Your task to perform on an android device: Go to Android settings Image 0: 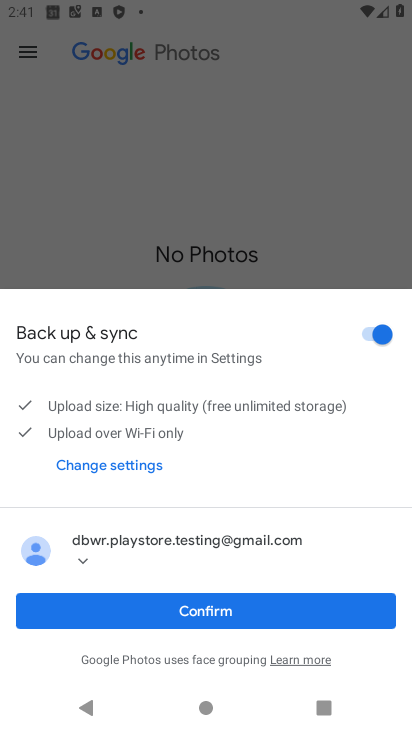
Step 0: press home button
Your task to perform on an android device: Go to Android settings Image 1: 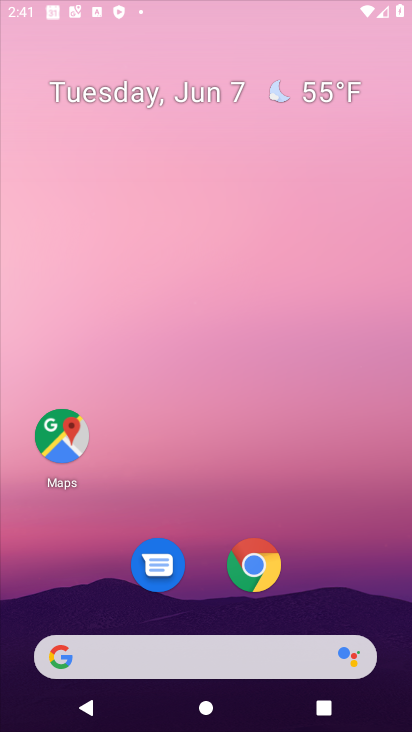
Step 1: drag from (245, 682) to (245, 72)
Your task to perform on an android device: Go to Android settings Image 2: 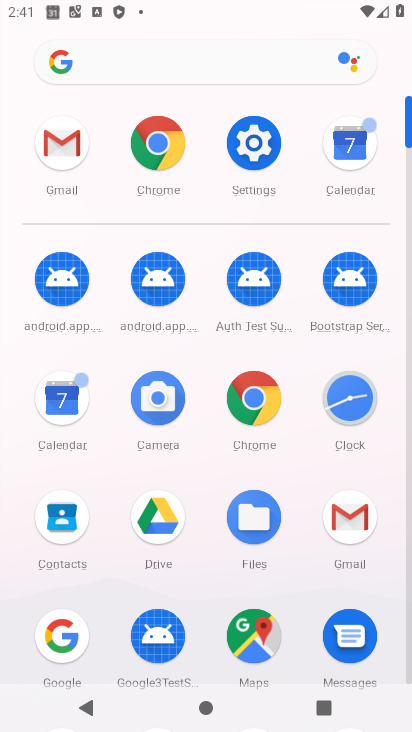
Step 2: click (246, 154)
Your task to perform on an android device: Go to Android settings Image 3: 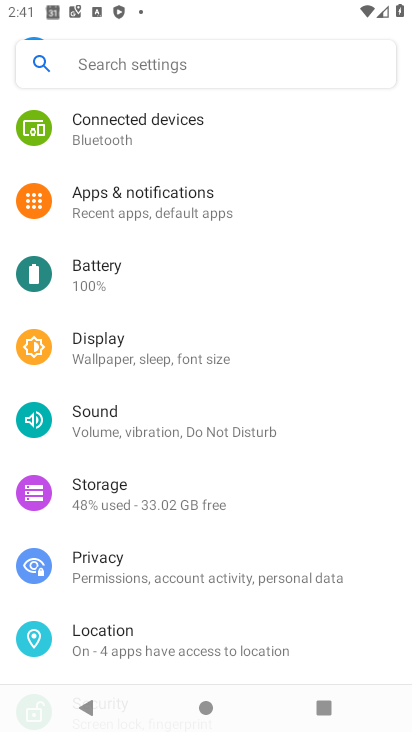
Step 3: drag from (188, 625) to (182, 54)
Your task to perform on an android device: Go to Android settings Image 4: 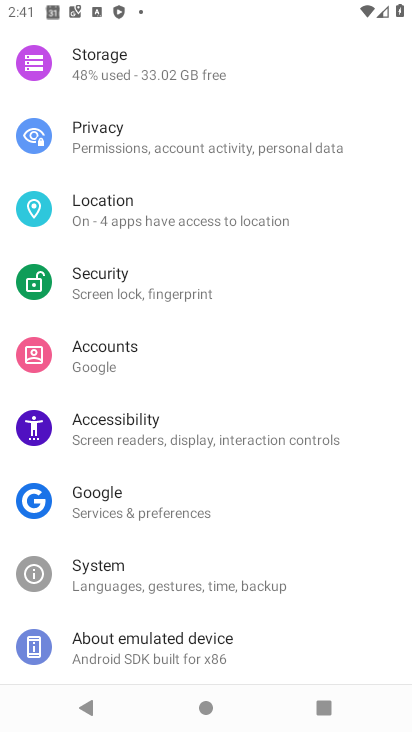
Step 4: click (199, 652)
Your task to perform on an android device: Go to Android settings Image 5: 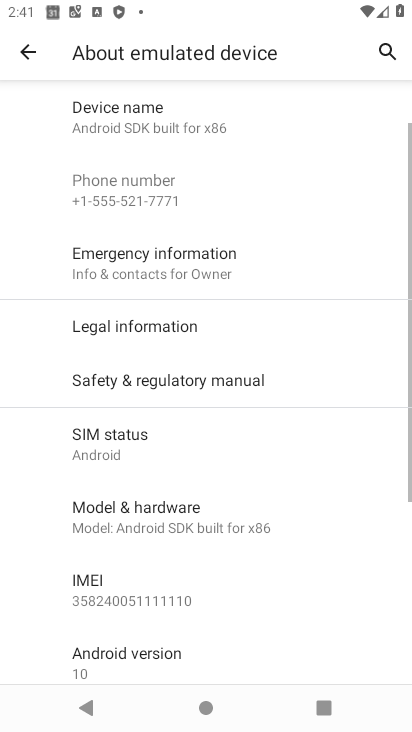
Step 5: click (169, 654)
Your task to perform on an android device: Go to Android settings Image 6: 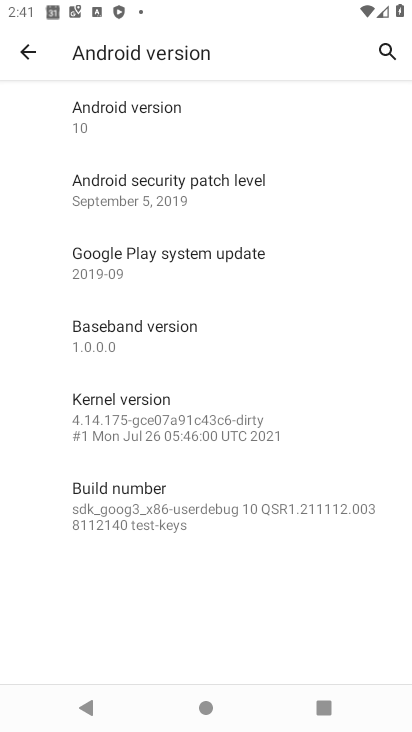
Step 6: task complete